Your task to perform on an android device: toggle wifi Image 0: 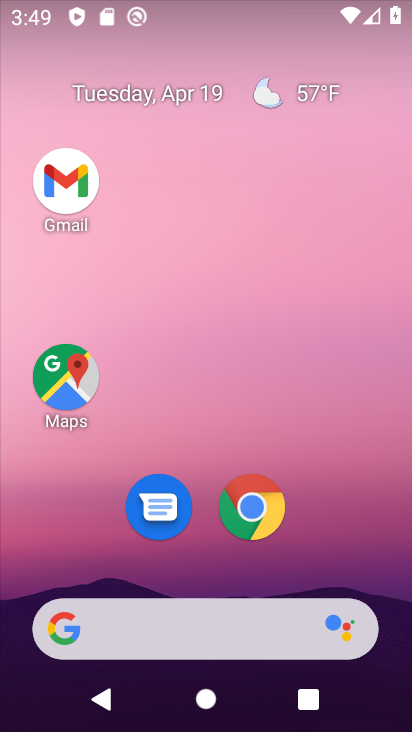
Step 0: drag from (248, 571) to (252, 89)
Your task to perform on an android device: toggle wifi Image 1: 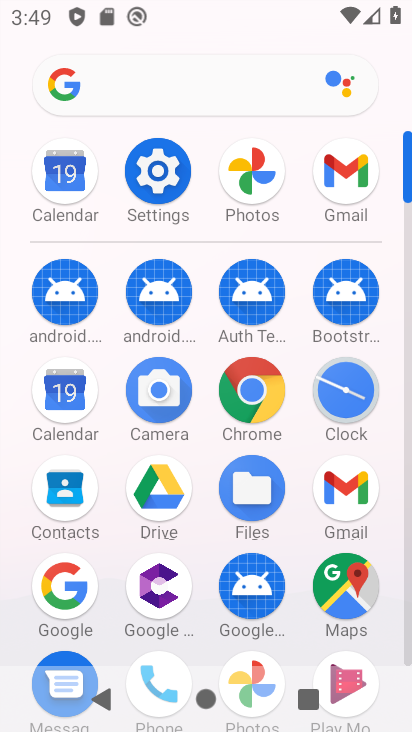
Step 1: click (168, 170)
Your task to perform on an android device: toggle wifi Image 2: 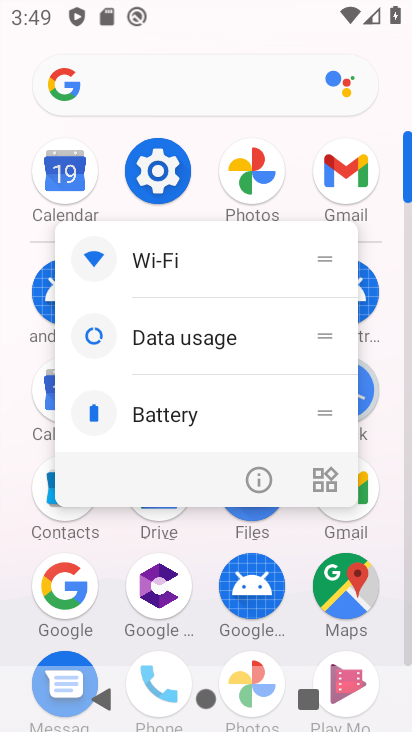
Step 2: click (168, 170)
Your task to perform on an android device: toggle wifi Image 3: 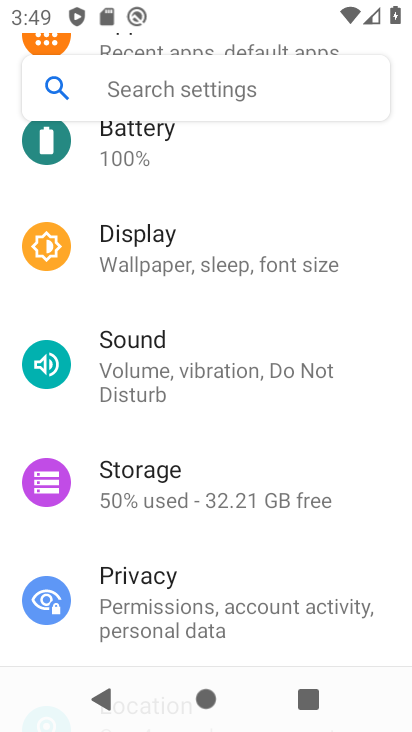
Step 3: drag from (307, 177) to (242, 655)
Your task to perform on an android device: toggle wifi Image 4: 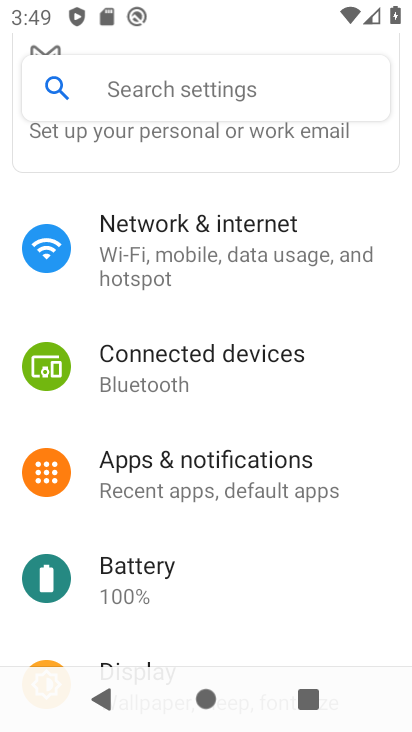
Step 4: click (250, 259)
Your task to perform on an android device: toggle wifi Image 5: 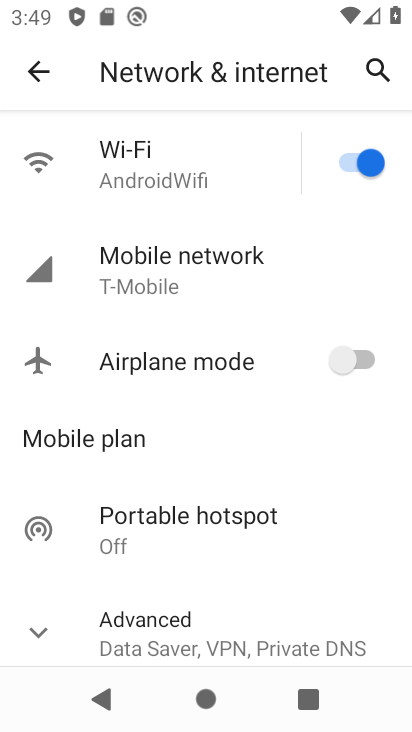
Step 5: click (343, 167)
Your task to perform on an android device: toggle wifi Image 6: 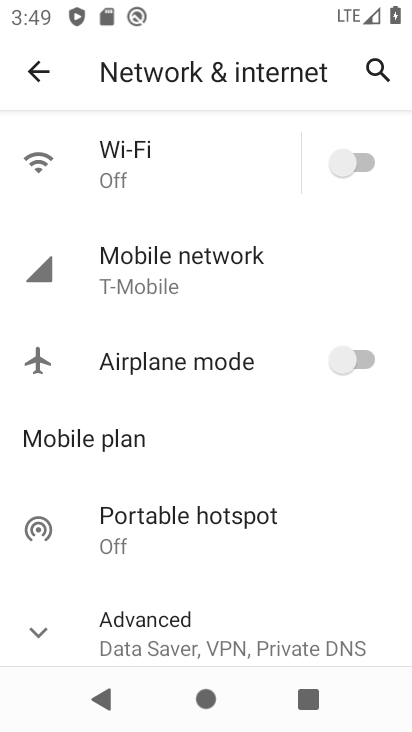
Step 6: task complete